Your task to perform on an android device: set an alarm Image 0: 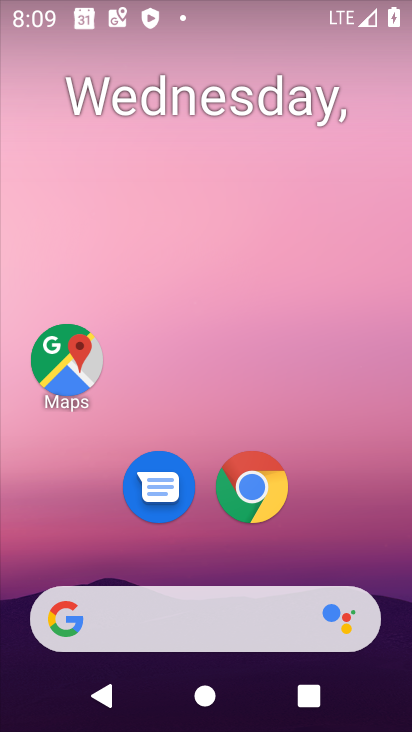
Step 0: drag from (335, 557) to (304, 8)
Your task to perform on an android device: set an alarm Image 1: 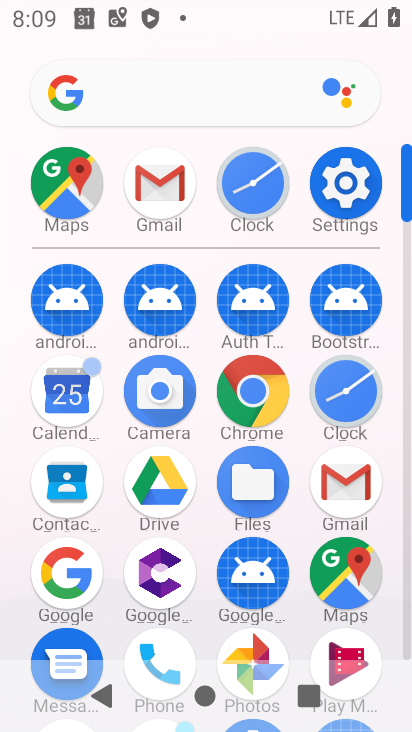
Step 1: click (258, 194)
Your task to perform on an android device: set an alarm Image 2: 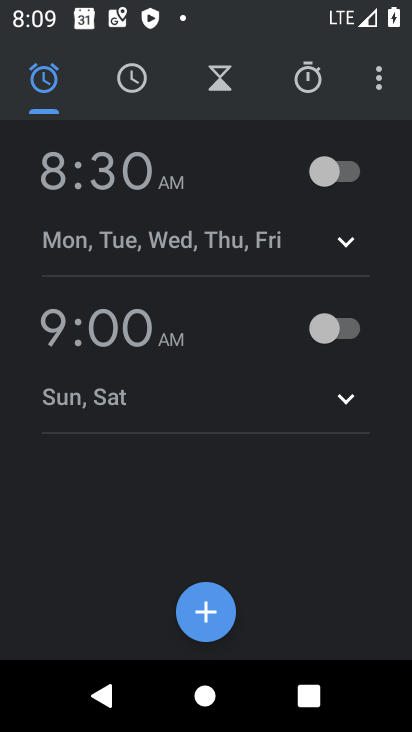
Step 2: click (197, 607)
Your task to perform on an android device: set an alarm Image 3: 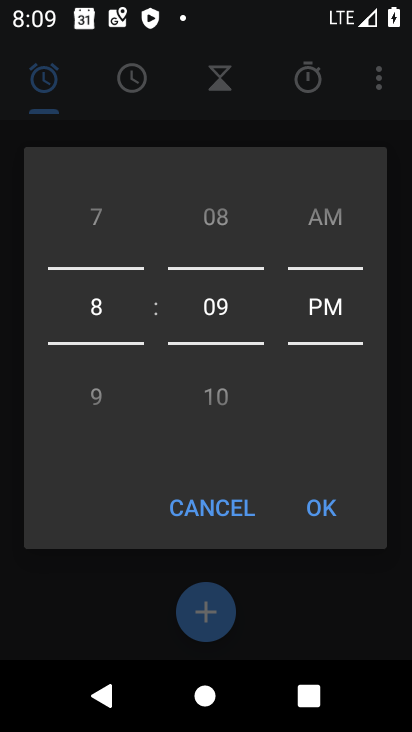
Step 3: drag from (92, 273) to (118, 577)
Your task to perform on an android device: set an alarm Image 4: 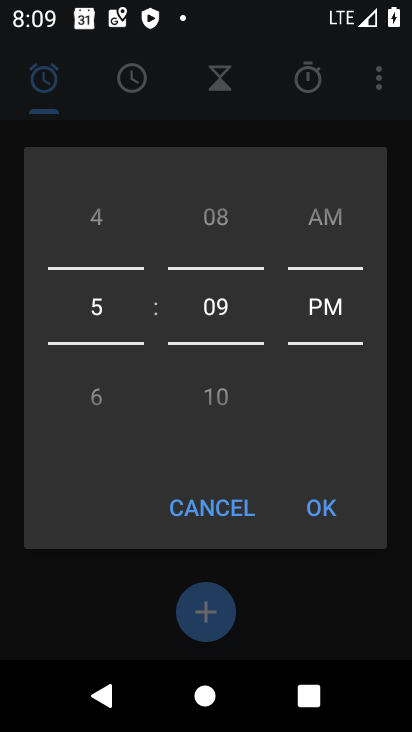
Step 4: drag from (210, 308) to (196, 539)
Your task to perform on an android device: set an alarm Image 5: 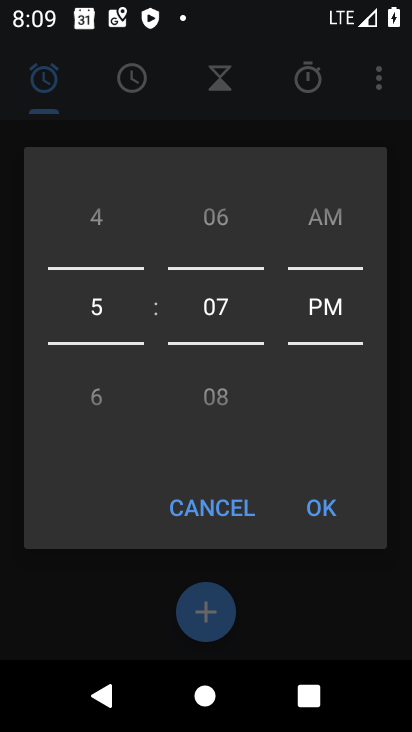
Step 5: drag from (233, 285) to (236, 512)
Your task to perform on an android device: set an alarm Image 6: 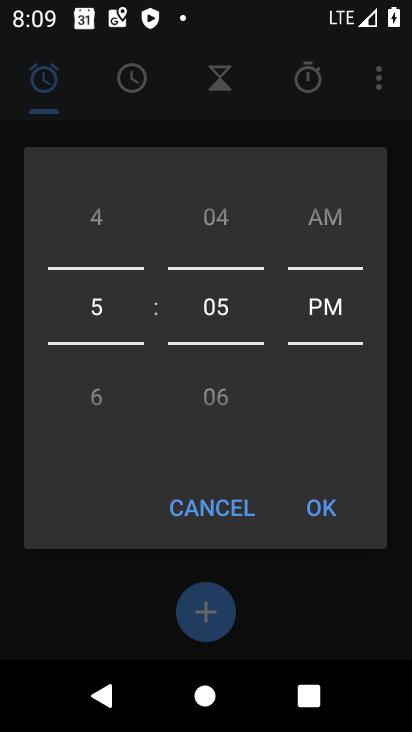
Step 6: drag from (315, 310) to (323, 468)
Your task to perform on an android device: set an alarm Image 7: 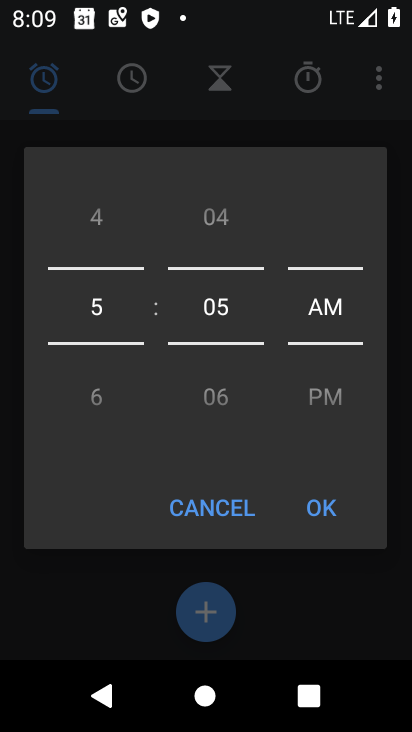
Step 7: click (307, 525)
Your task to perform on an android device: set an alarm Image 8: 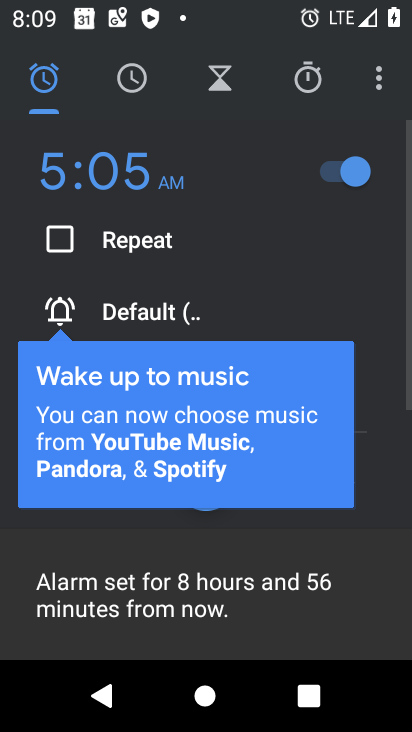
Step 8: task complete